Your task to perform on an android device: Play the last video I watched on Youtube Image 0: 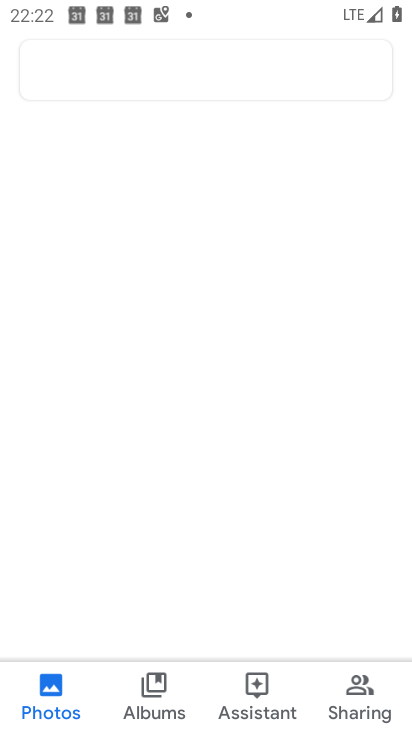
Step 0: click (261, 600)
Your task to perform on an android device: Play the last video I watched on Youtube Image 1: 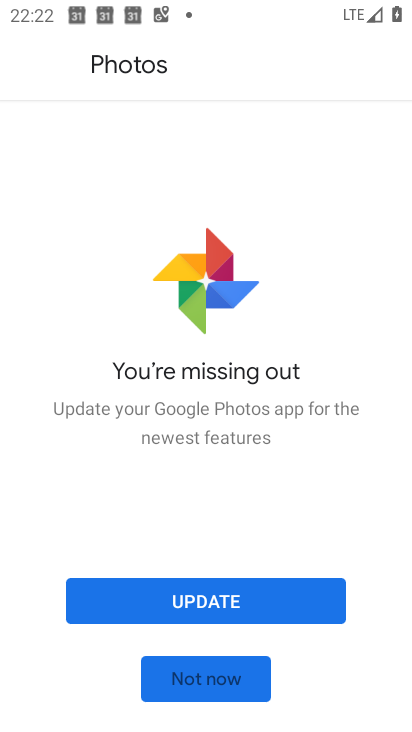
Step 1: press home button
Your task to perform on an android device: Play the last video I watched on Youtube Image 2: 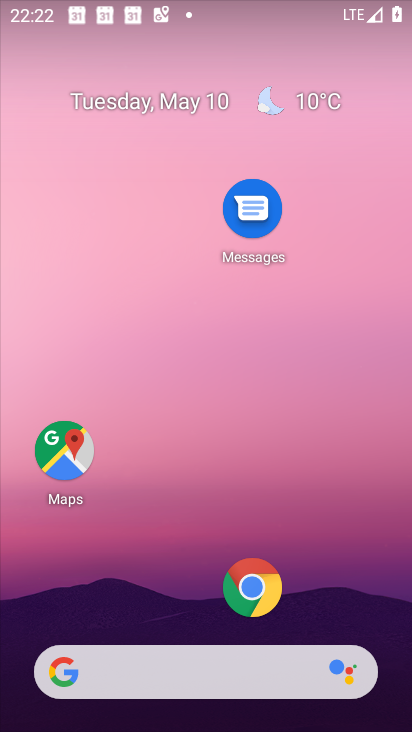
Step 2: drag from (153, 578) to (223, 119)
Your task to perform on an android device: Play the last video I watched on Youtube Image 3: 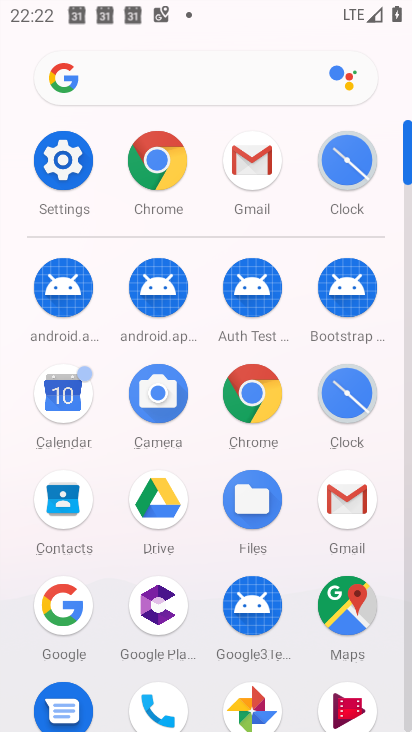
Step 3: drag from (204, 624) to (238, 263)
Your task to perform on an android device: Play the last video I watched on Youtube Image 4: 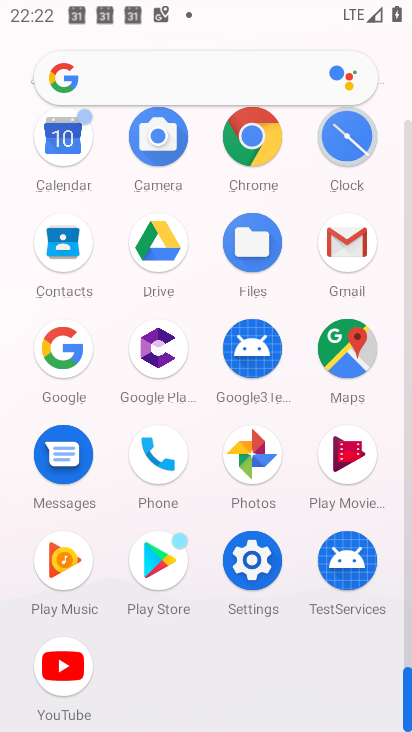
Step 4: click (69, 674)
Your task to perform on an android device: Play the last video I watched on Youtube Image 5: 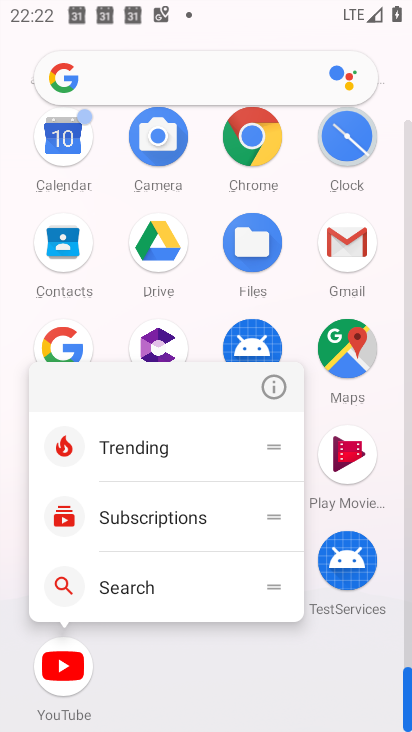
Step 5: click (71, 661)
Your task to perform on an android device: Play the last video I watched on Youtube Image 6: 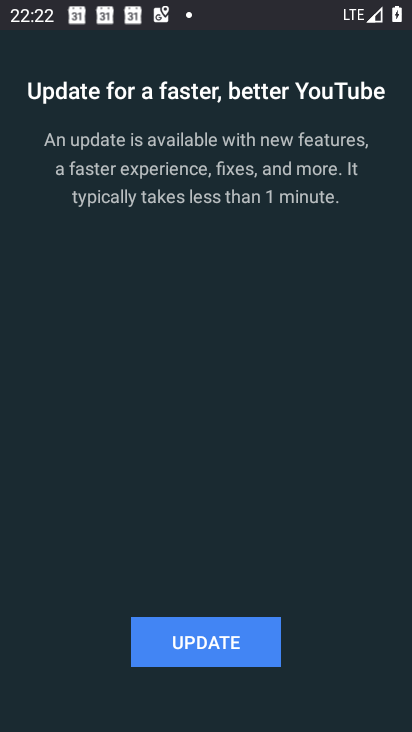
Step 6: click (237, 636)
Your task to perform on an android device: Play the last video I watched on Youtube Image 7: 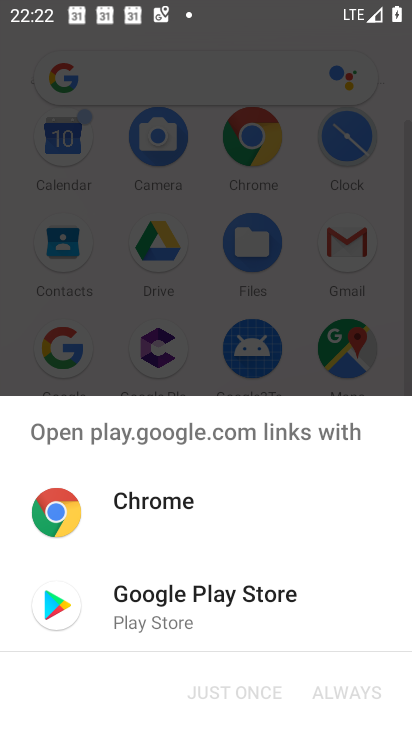
Step 7: click (166, 612)
Your task to perform on an android device: Play the last video I watched on Youtube Image 8: 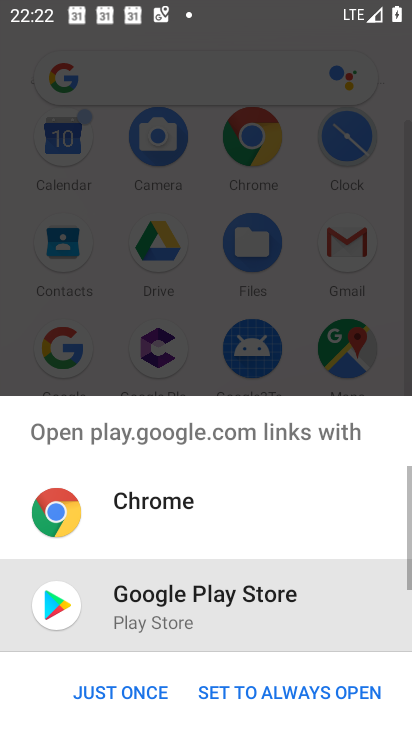
Step 8: click (144, 703)
Your task to perform on an android device: Play the last video I watched on Youtube Image 9: 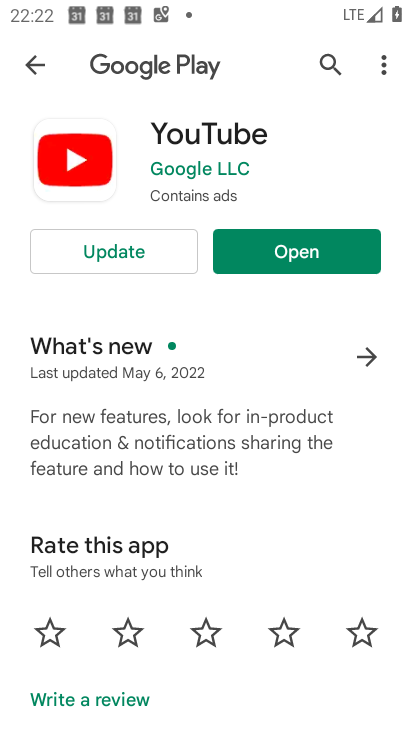
Step 9: click (150, 259)
Your task to perform on an android device: Play the last video I watched on Youtube Image 10: 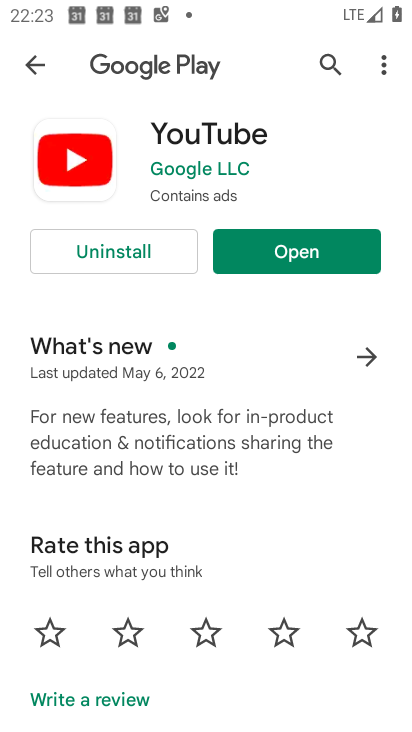
Step 10: click (316, 249)
Your task to perform on an android device: Play the last video I watched on Youtube Image 11: 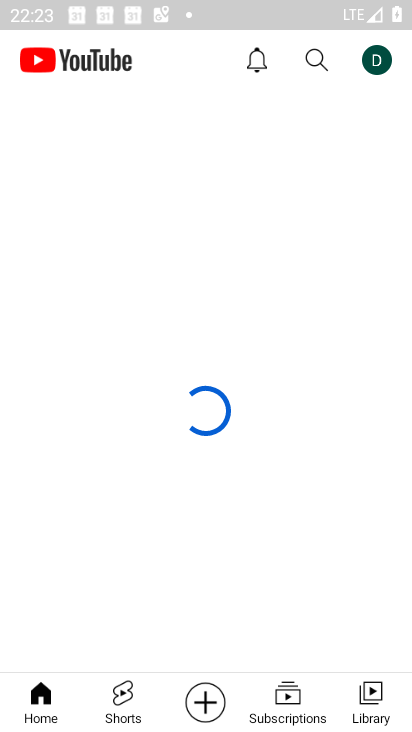
Step 11: click (356, 711)
Your task to perform on an android device: Play the last video I watched on Youtube Image 12: 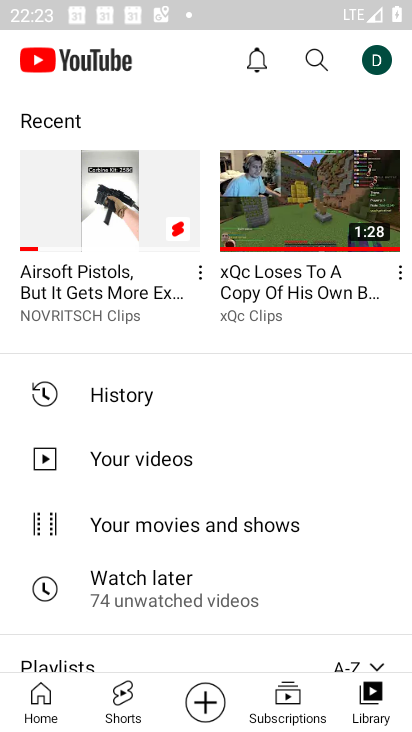
Step 12: click (136, 208)
Your task to perform on an android device: Play the last video I watched on Youtube Image 13: 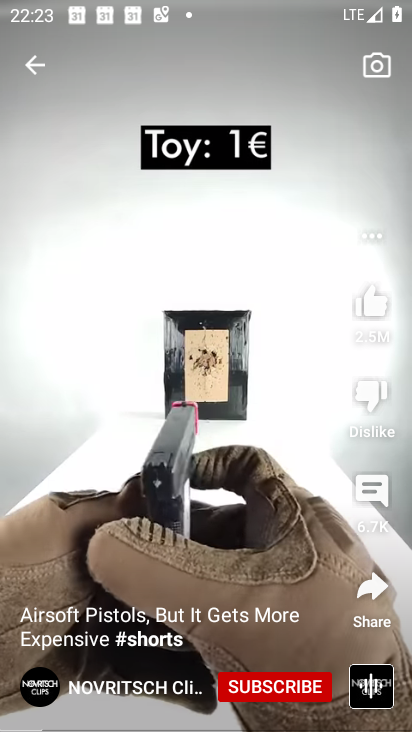
Step 13: task complete